Your task to perform on an android device: move a message to another label in the gmail app Image 0: 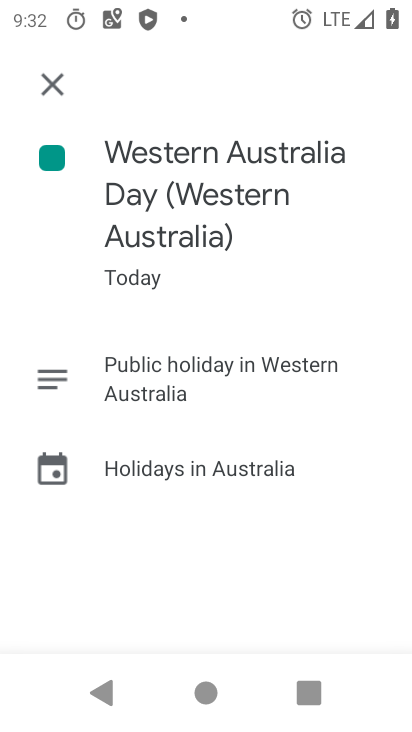
Step 0: press home button
Your task to perform on an android device: move a message to another label in the gmail app Image 1: 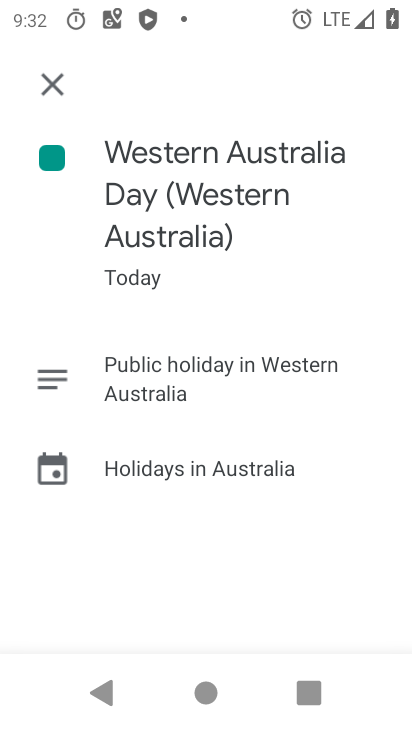
Step 1: press home button
Your task to perform on an android device: move a message to another label in the gmail app Image 2: 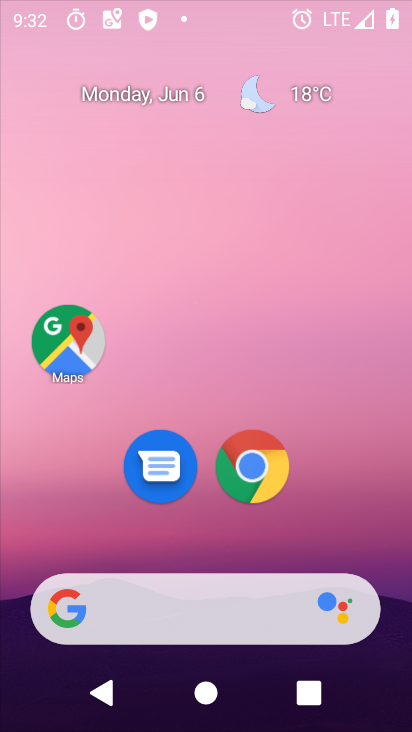
Step 2: press home button
Your task to perform on an android device: move a message to another label in the gmail app Image 3: 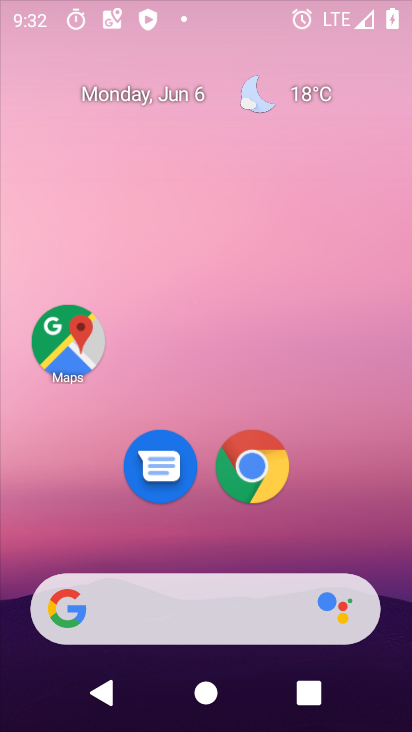
Step 3: click (191, 146)
Your task to perform on an android device: move a message to another label in the gmail app Image 4: 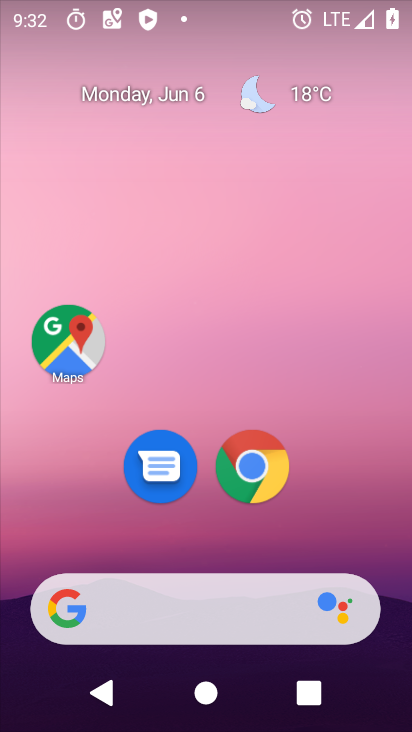
Step 4: drag from (201, 554) to (241, 17)
Your task to perform on an android device: move a message to another label in the gmail app Image 5: 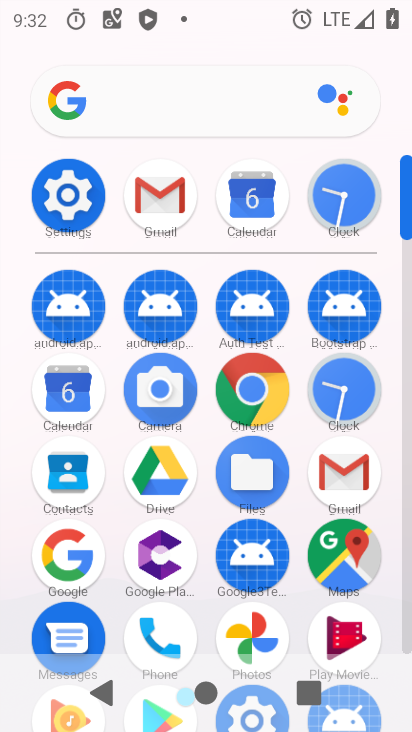
Step 5: click (334, 483)
Your task to perform on an android device: move a message to another label in the gmail app Image 6: 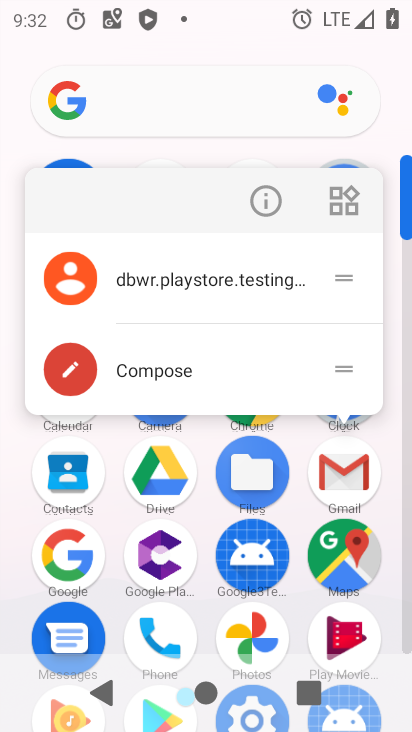
Step 6: click (179, 265)
Your task to perform on an android device: move a message to another label in the gmail app Image 7: 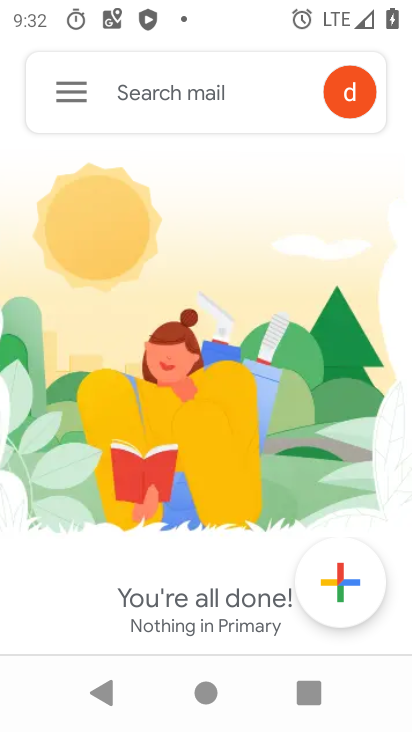
Step 7: click (70, 101)
Your task to perform on an android device: move a message to another label in the gmail app Image 8: 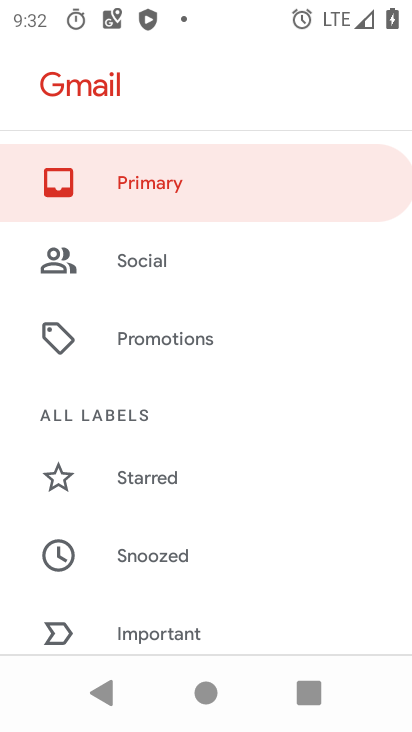
Step 8: click (148, 196)
Your task to perform on an android device: move a message to another label in the gmail app Image 9: 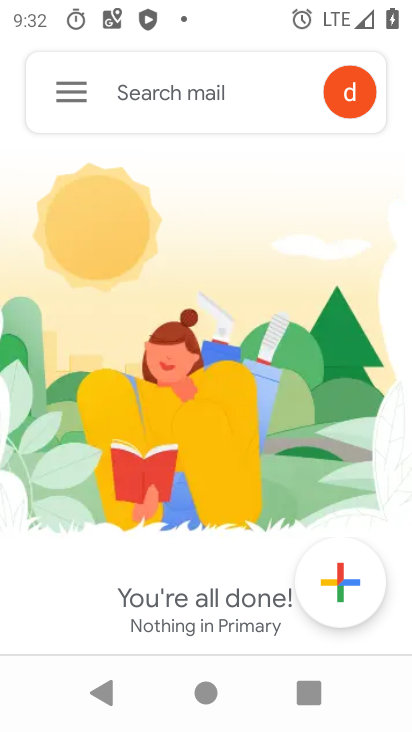
Step 9: task complete